Your task to perform on an android device: uninstall "Microsoft Outlook" Image 0: 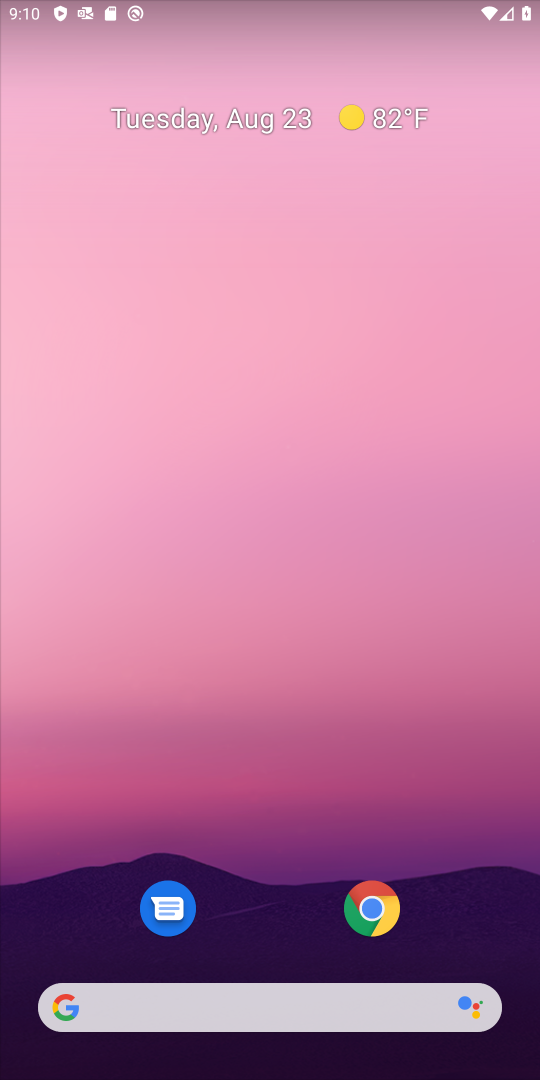
Step 0: drag from (296, 938) to (323, 0)
Your task to perform on an android device: uninstall "Microsoft Outlook" Image 1: 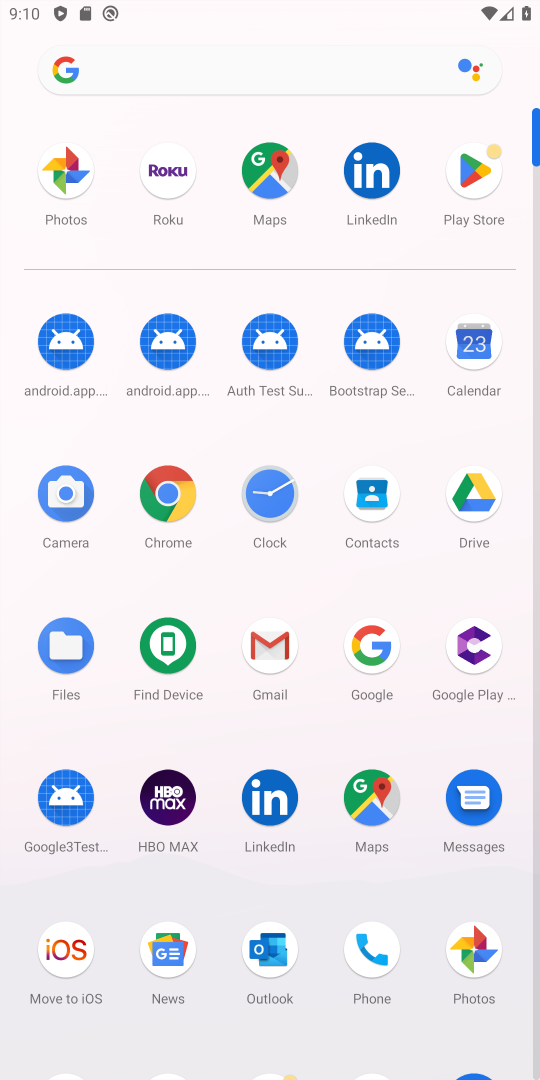
Step 1: click (471, 171)
Your task to perform on an android device: uninstall "Microsoft Outlook" Image 2: 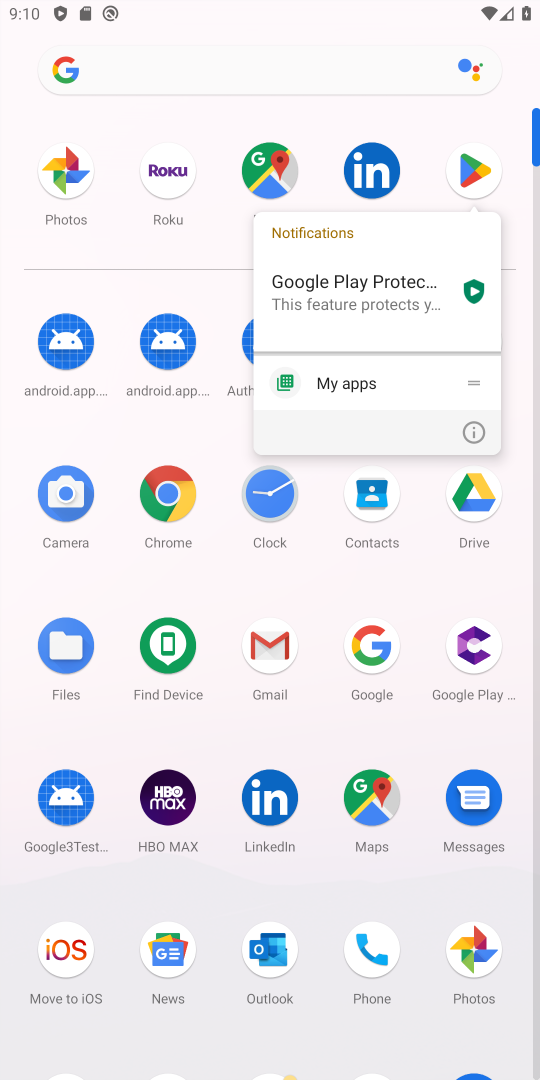
Step 2: click (468, 172)
Your task to perform on an android device: uninstall "Microsoft Outlook" Image 3: 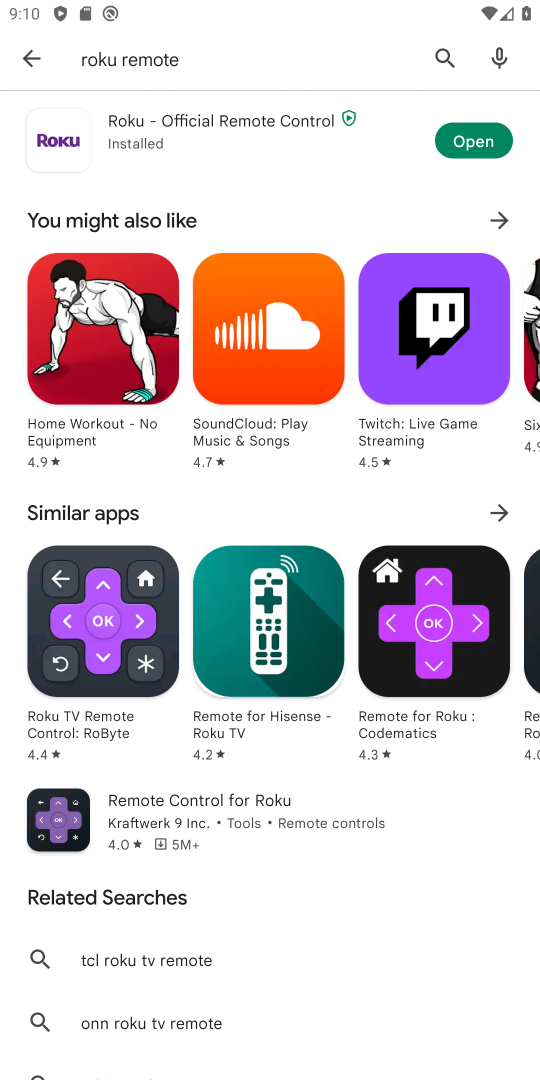
Step 3: click (250, 64)
Your task to perform on an android device: uninstall "Microsoft Outlook" Image 4: 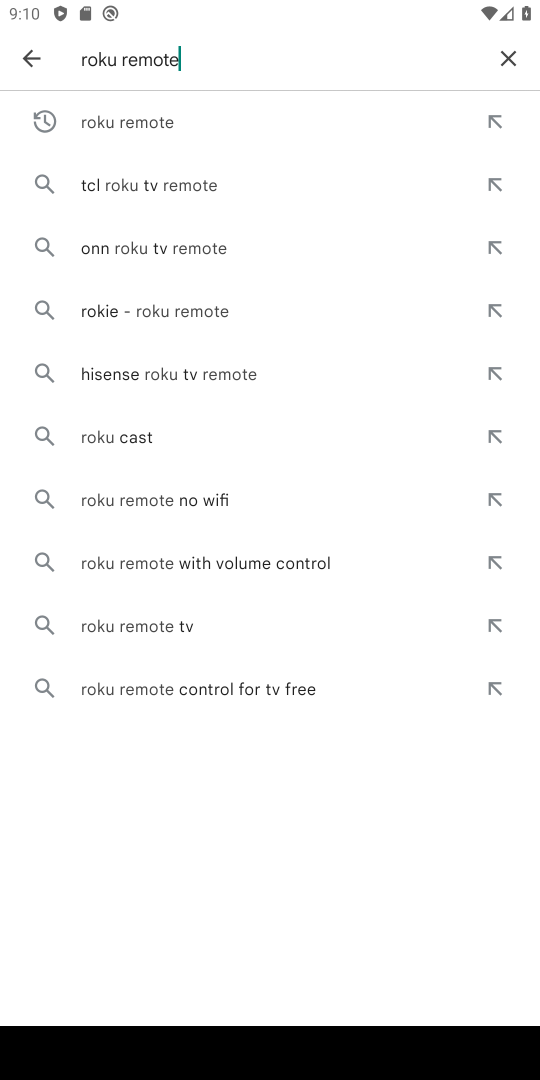
Step 4: click (505, 57)
Your task to perform on an android device: uninstall "Microsoft Outlook" Image 5: 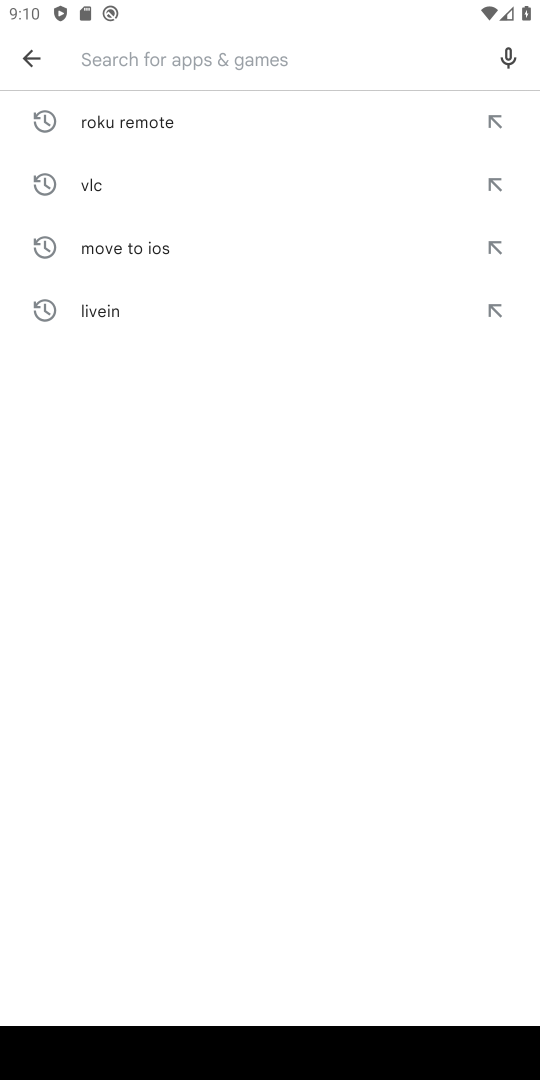
Step 5: type "microsoft Outlook"
Your task to perform on an android device: uninstall "Microsoft Outlook" Image 6: 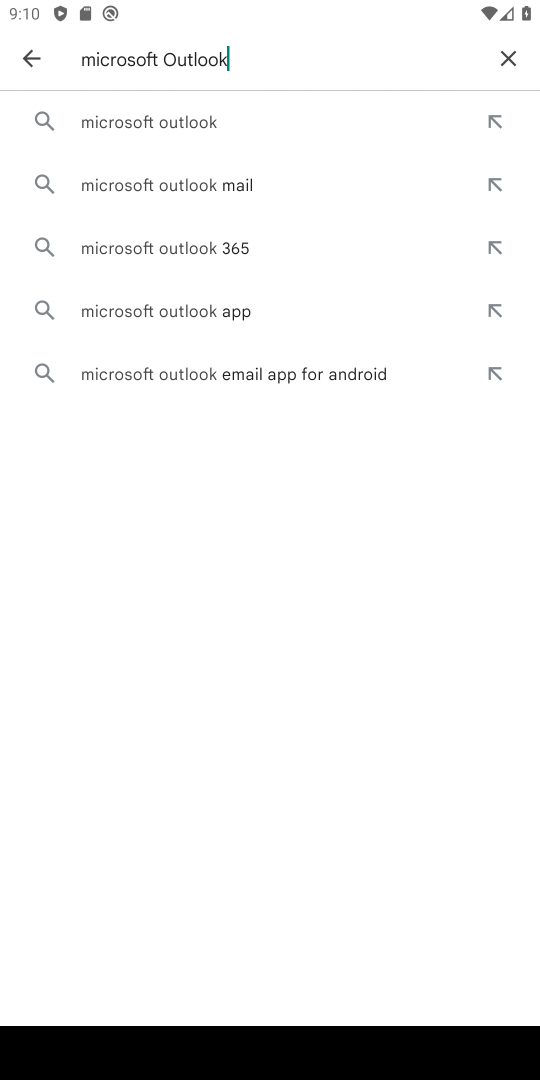
Step 6: click (207, 131)
Your task to perform on an android device: uninstall "Microsoft Outlook" Image 7: 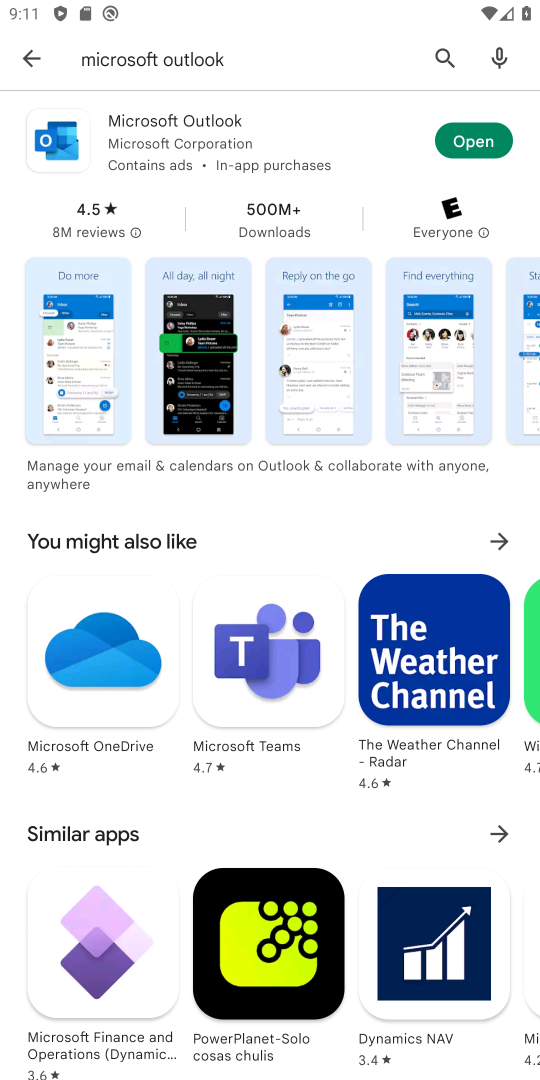
Step 7: click (132, 114)
Your task to perform on an android device: uninstall "Microsoft Outlook" Image 8: 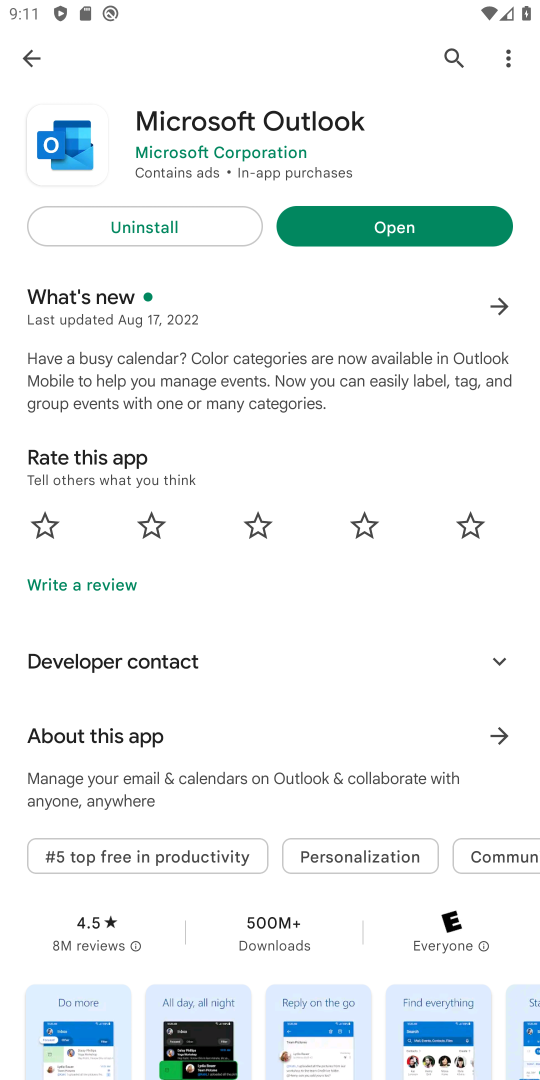
Step 8: click (182, 221)
Your task to perform on an android device: uninstall "Microsoft Outlook" Image 9: 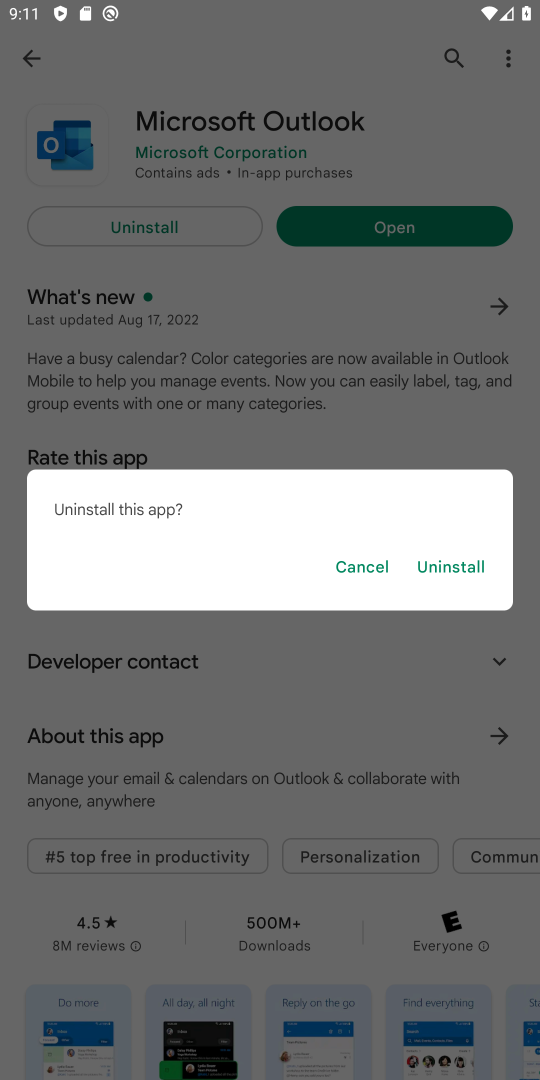
Step 9: click (455, 559)
Your task to perform on an android device: uninstall "Microsoft Outlook" Image 10: 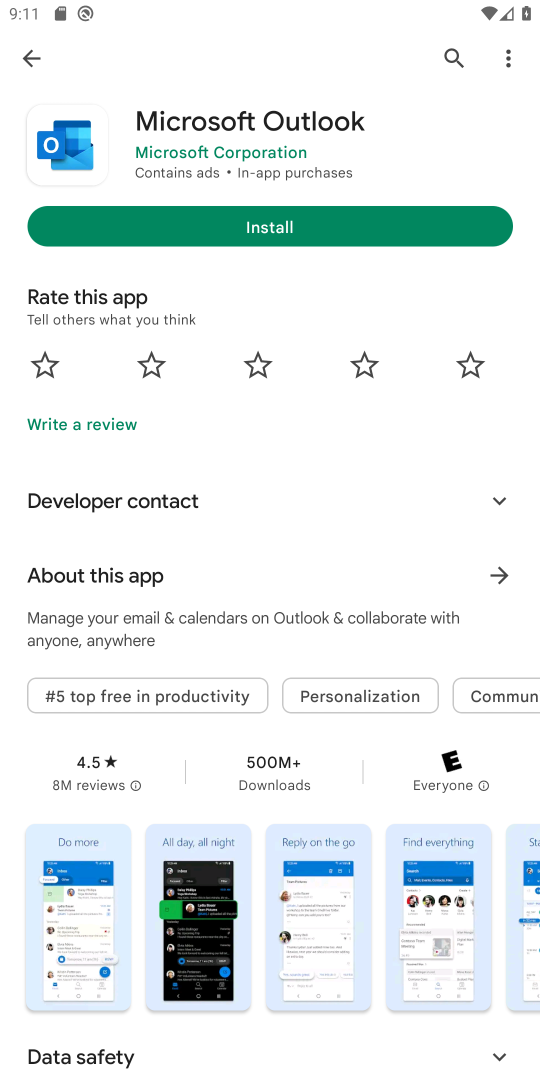
Step 10: task complete